Your task to perform on an android device: Search for seafood restaurants on Google Maps Image 0: 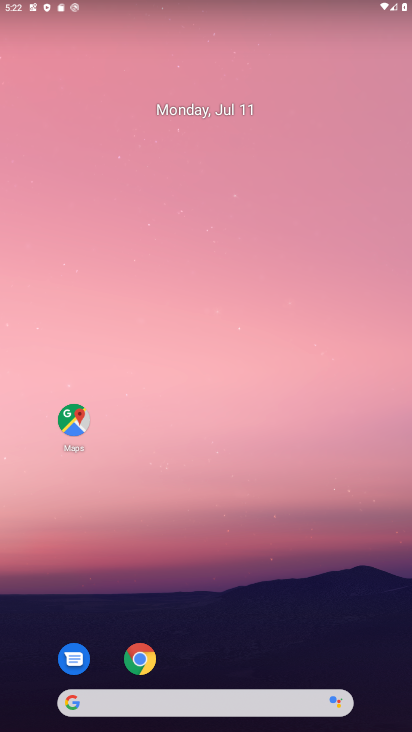
Step 0: click (77, 420)
Your task to perform on an android device: Search for seafood restaurants on Google Maps Image 1: 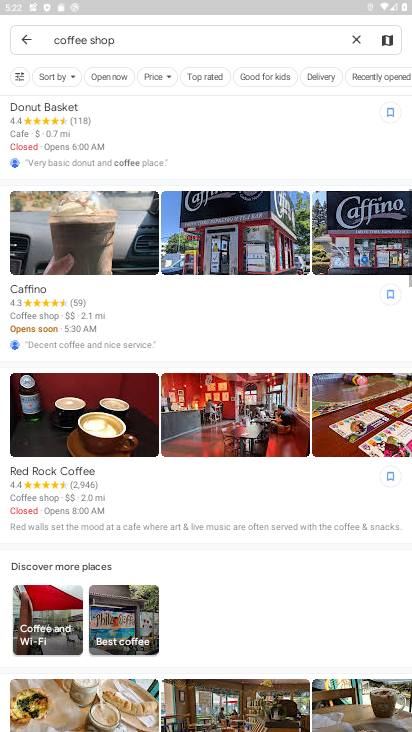
Step 1: click (355, 35)
Your task to perform on an android device: Search for seafood restaurants on Google Maps Image 2: 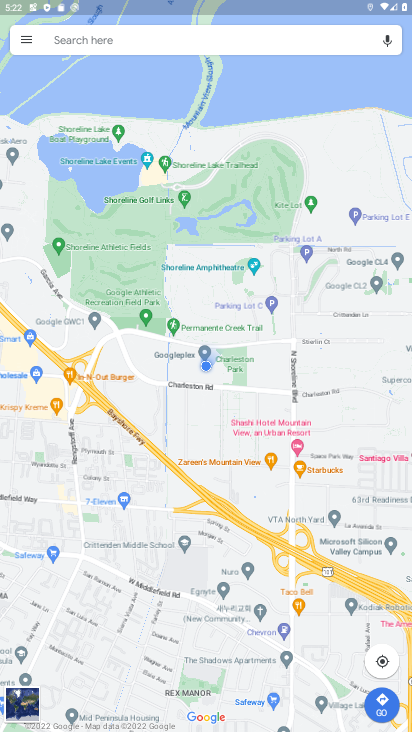
Step 2: click (73, 40)
Your task to perform on an android device: Search for seafood restaurants on Google Maps Image 3: 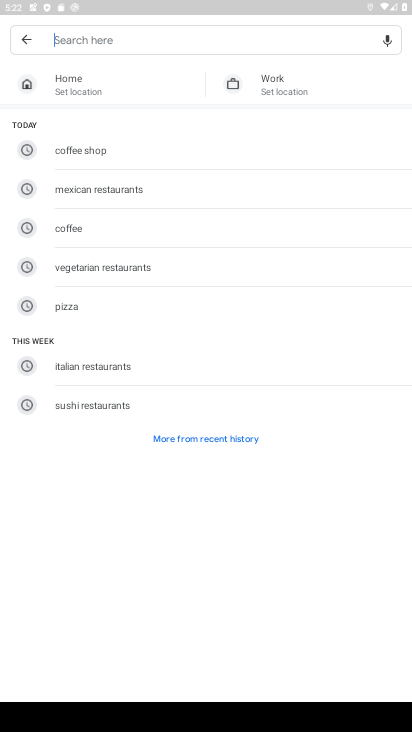
Step 3: type "seafood restaurants"
Your task to perform on an android device: Search for seafood restaurants on Google Maps Image 4: 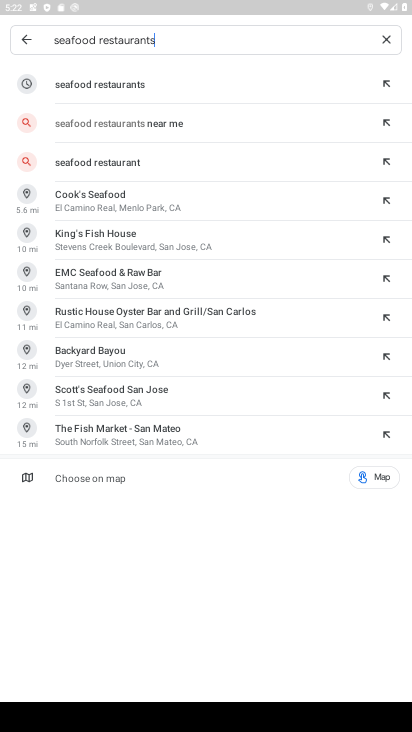
Step 4: click (94, 78)
Your task to perform on an android device: Search for seafood restaurants on Google Maps Image 5: 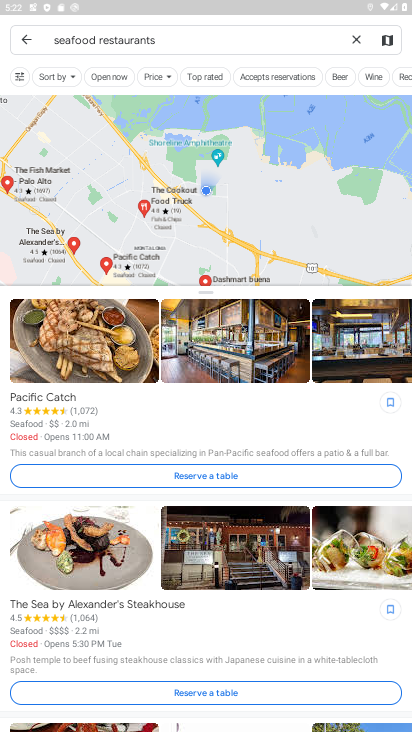
Step 5: task complete